Your task to perform on an android device: set the stopwatch Image 0: 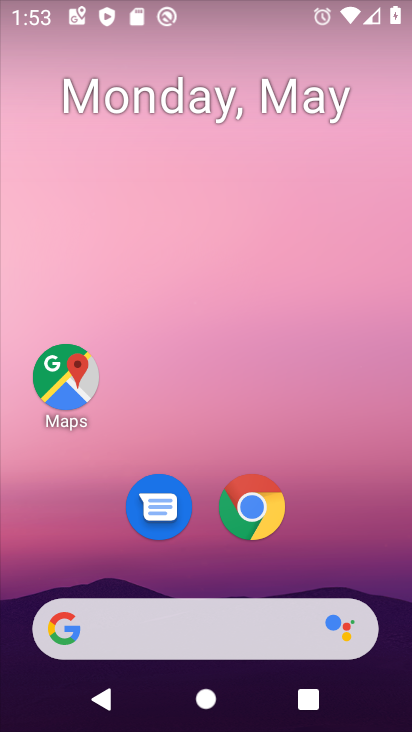
Step 0: drag from (237, 725) to (234, 8)
Your task to perform on an android device: set the stopwatch Image 1: 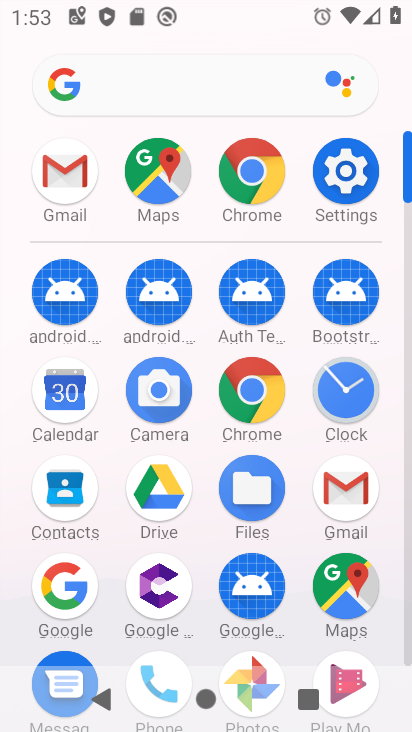
Step 1: click (351, 388)
Your task to perform on an android device: set the stopwatch Image 2: 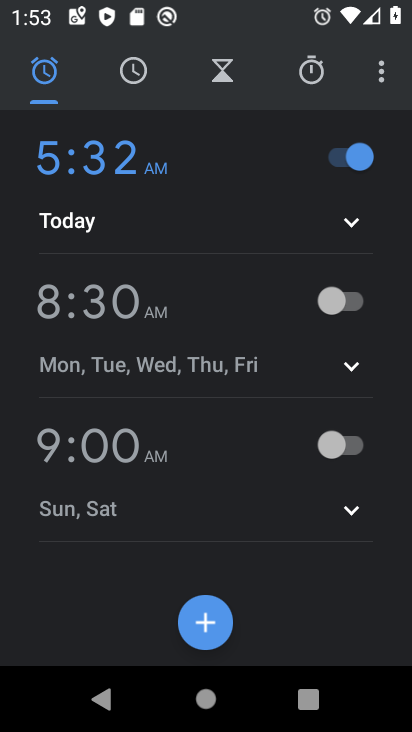
Step 2: click (312, 73)
Your task to perform on an android device: set the stopwatch Image 3: 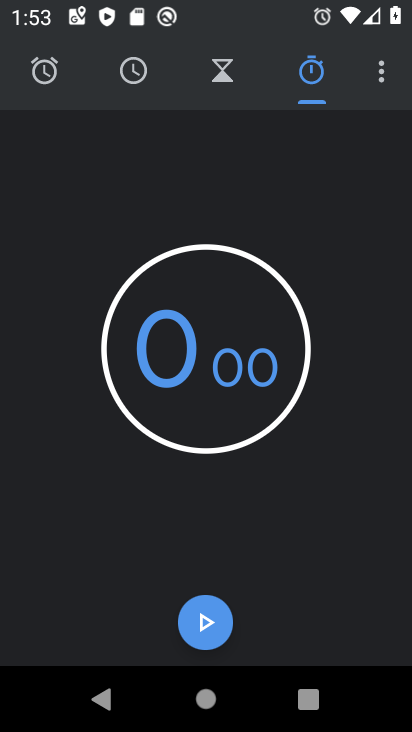
Step 3: click (196, 351)
Your task to perform on an android device: set the stopwatch Image 4: 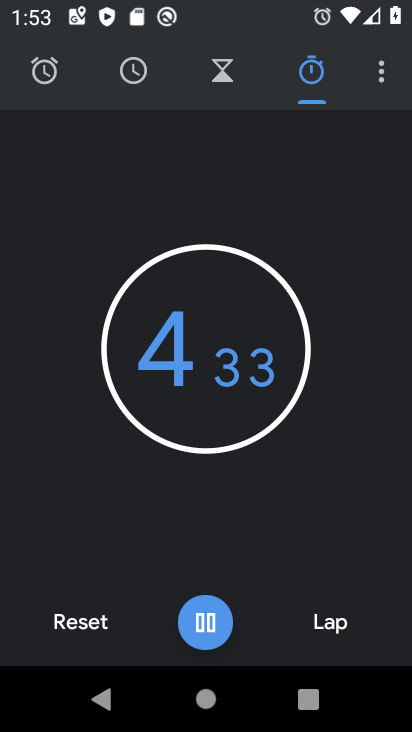
Step 4: task complete